Your task to perform on an android device: When is my next meeting? Image 0: 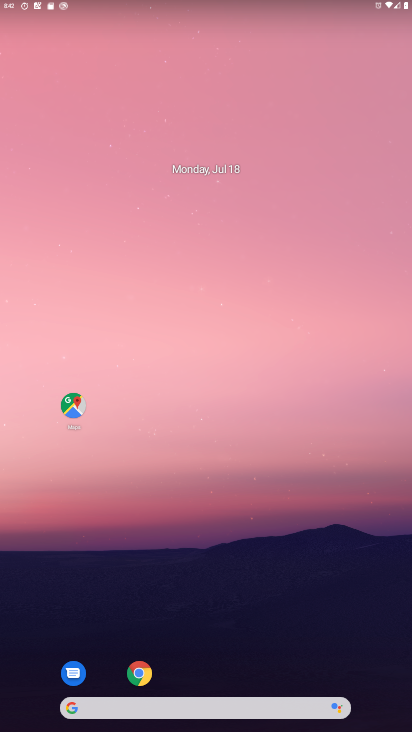
Step 0: drag from (175, 663) to (146, 35)
Your task to perform on an android device: When is my next meeting? Image 1: 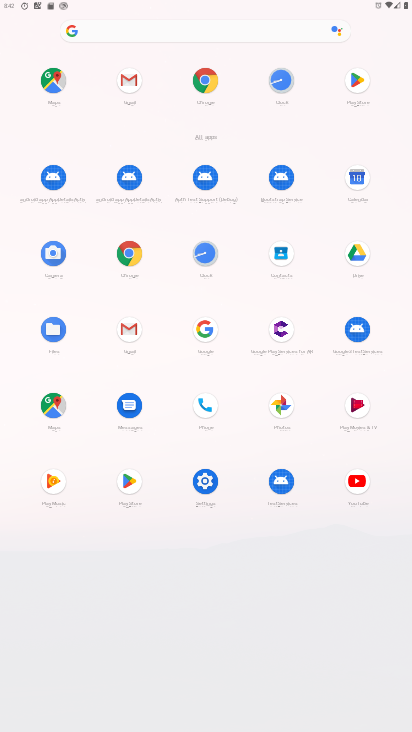
Step 1: click (356, 178)
Your task to perform on an android device: When is my next meeting? Image 2: 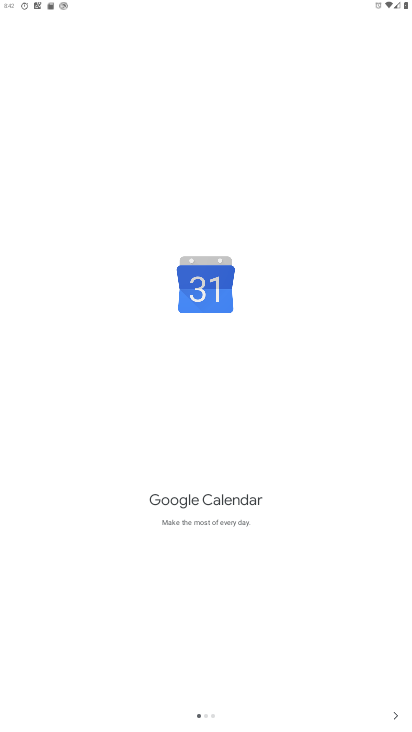
Step 2: click (390, 722)
Your task to perform on an android device: When is my next meeting? Image 3: 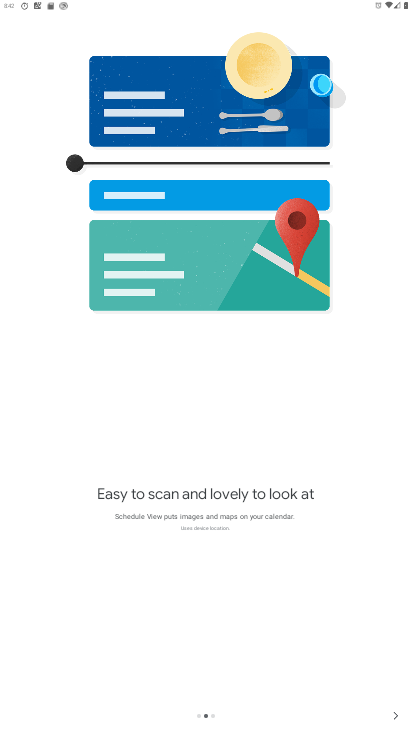
Step 3: click (390, 722)
Your task to perform on an android device: When is my next meeting? Image 4: 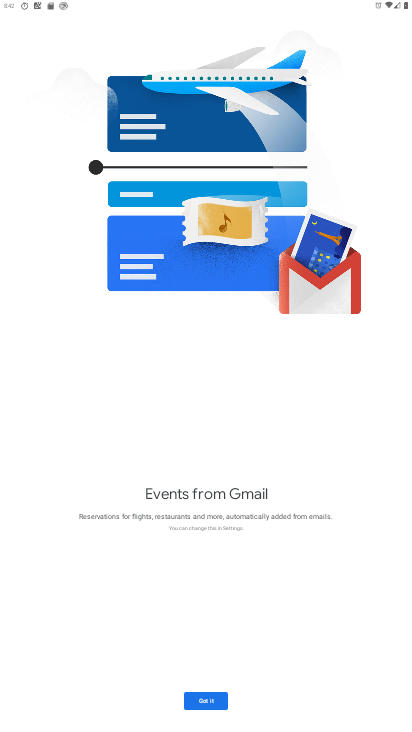
Step 4: click (208, 703)
Your task to perform on an android device: When is my next meeting? Image 5: 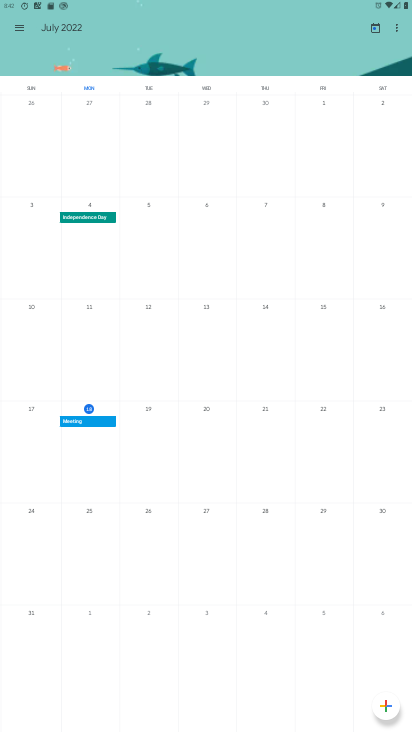
Step 5: task complete